Your task to perform on an android device: toggle airplane mode Image 0: 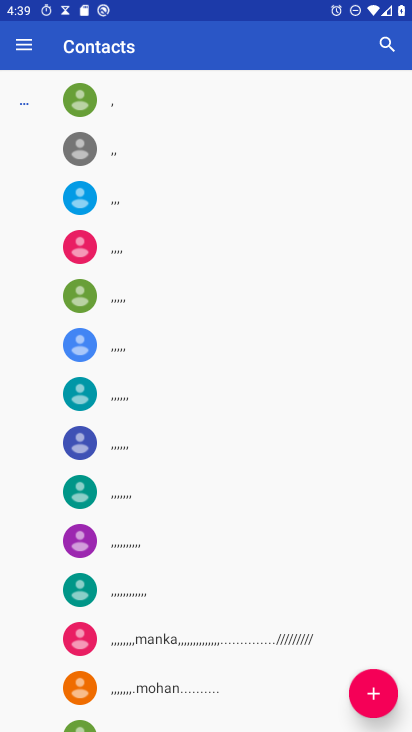
Step 0: press home button
Your task to perform on an android device: toggle airplane mode Image 1: 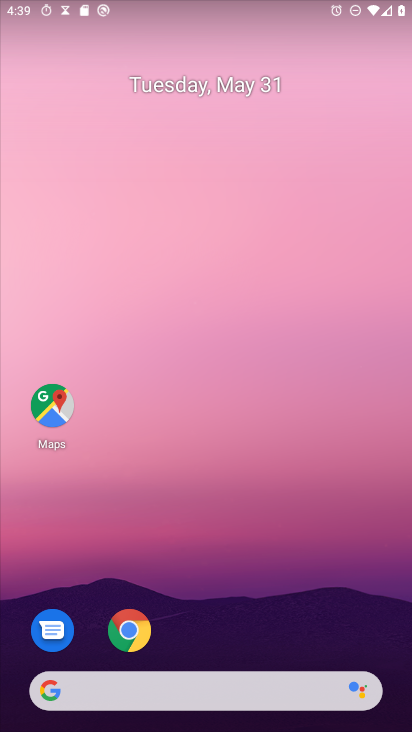
Step 1: drag from (378, 689) to (281, 6)
Your task to perform on an android device: toggle airplane mode Image 2: 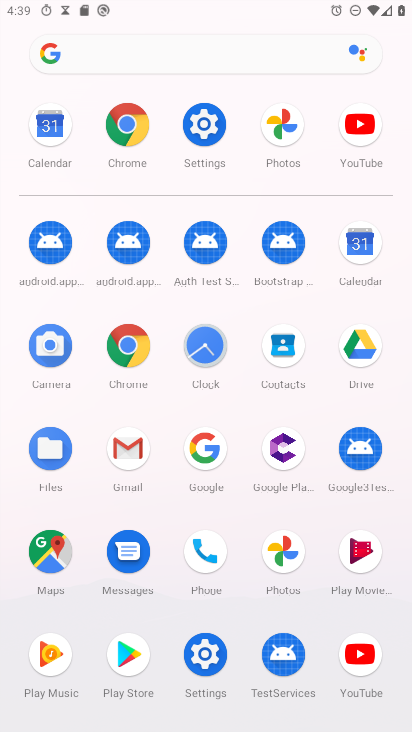
Step 2: click (206, 134)
Your task to perform on an android device: toggle airplane mode Image 3: 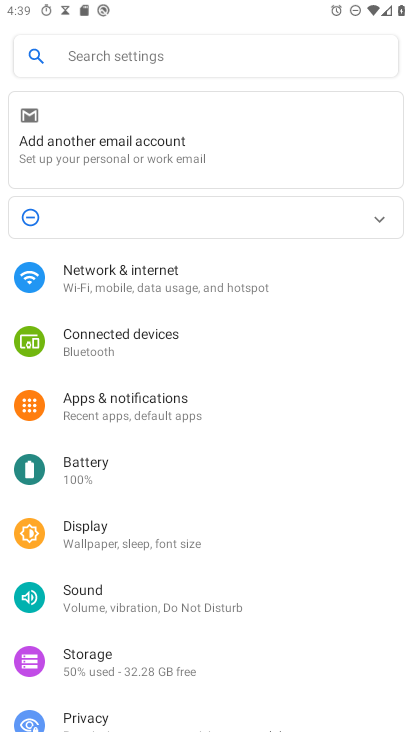
Step 3: click (199, 268)
Your task to perform on an android device: toggle airplane mode Image 4: 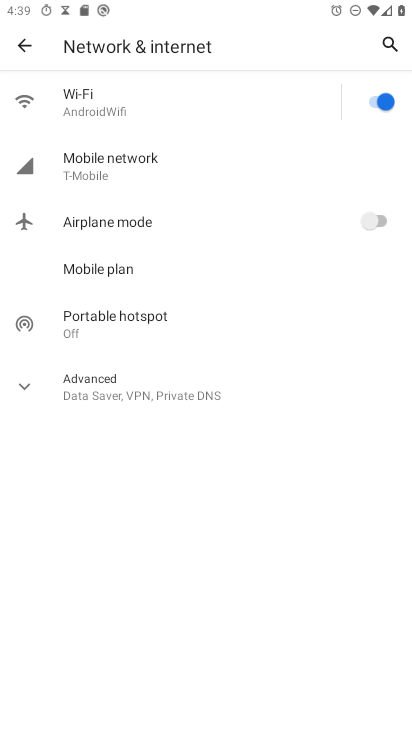
Step 4: click (381, 222)
Your task to perform on an android device: toggle airplane mode Image 5: 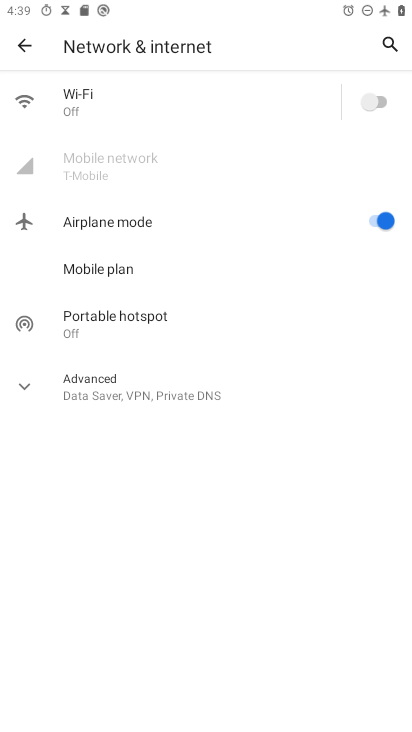
Step 5: task complete